Your task to perform on an android device: Go to internet settings Image 0: 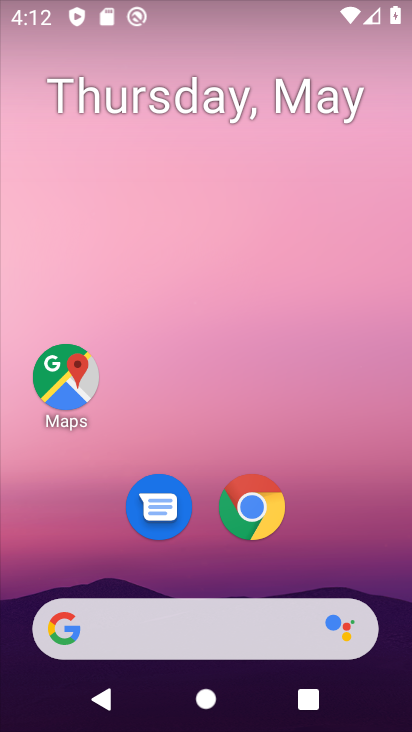
Step 0: drag from (330, 567) to (293, 4)
Your task to perform on an android device: Go to internet settings Image 1: 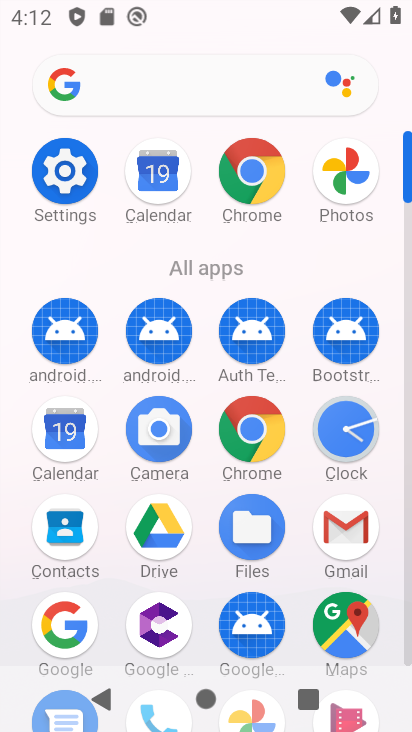
Step 1: click (71, 171)
Your task to perform on an android device: Go to internet settings Image 2: 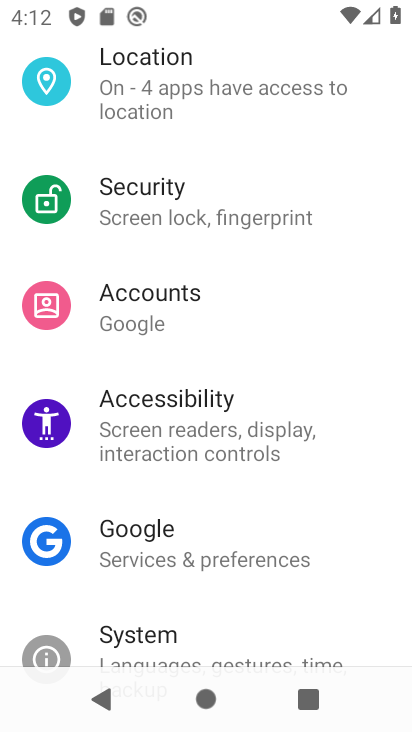
Step 2: drag from (109, 227) to (202, 492)
Your task to perform on an android device: Go to internet settings Image 3: 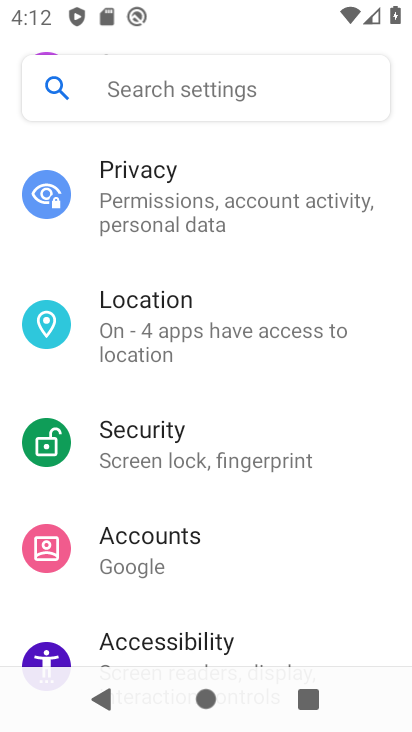
Step 3: drag from (173, 226) to (240, 473)
Your task to perform on an android device: Go to internet settings Image 4: 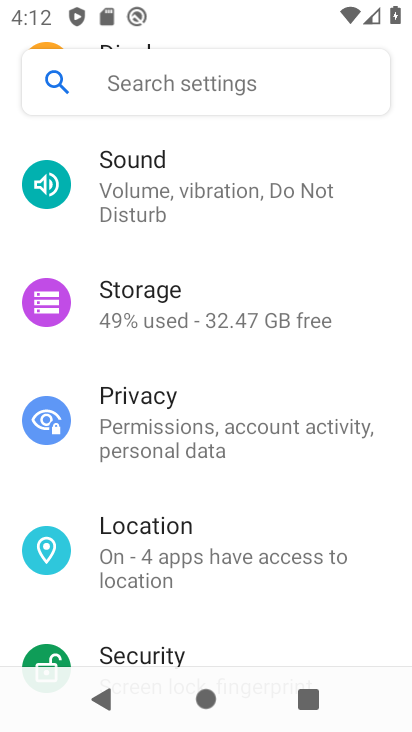
Step 4: drag from (217, 272) to (289, 475)
Your task to perform on an android device: Go to internet settings Image 5: 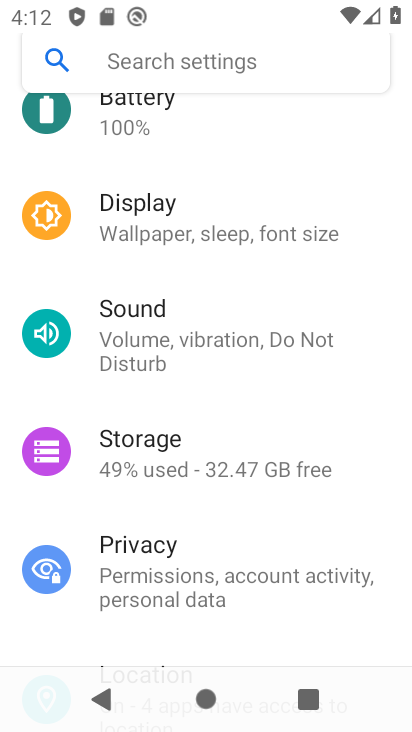
Step 5: drag from (239, 213) to (282, 436)
Your task to perform on an android device: Go to internet settings Image 6: 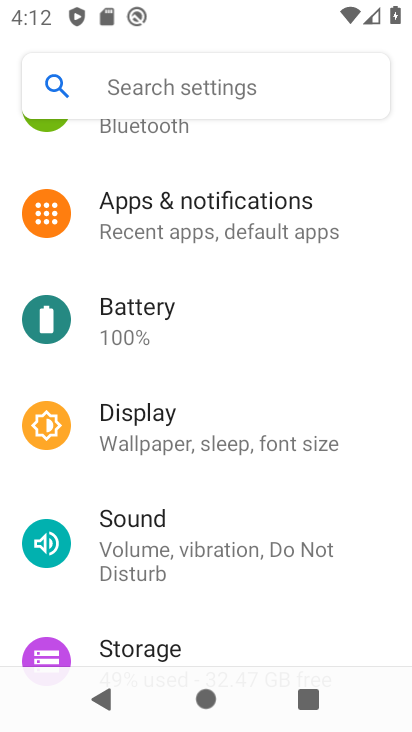
Step 6: drag from (216, 246) to (262, 417)
Your task to perform on an android device: Go to internet settings Image 7: 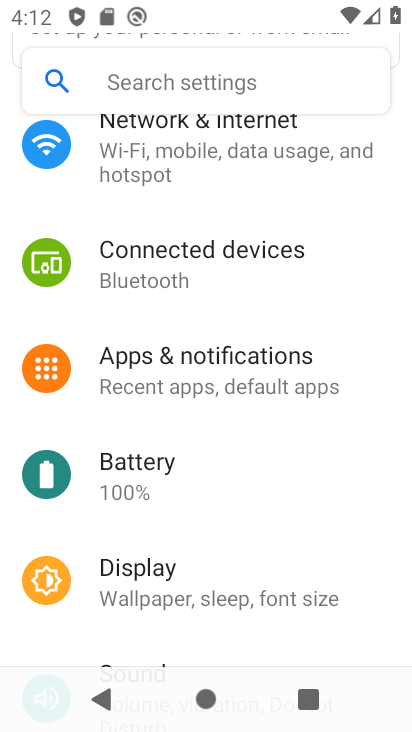
Step 7: drag from (254, 192) to (285, 472)
Your task to perform on an android device: Go to internet settings Image 8: 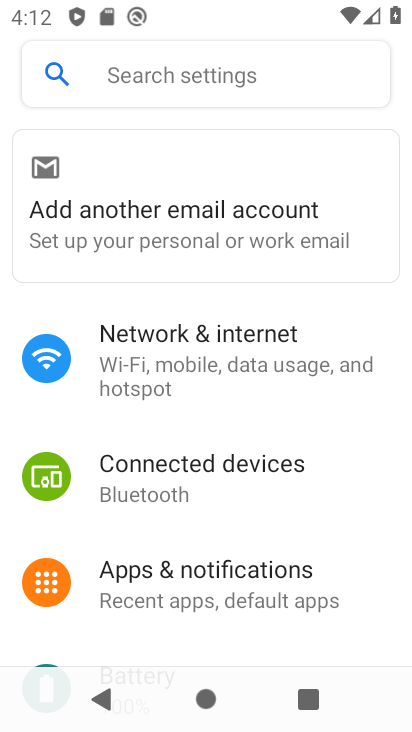
Step 8: click (177, 348)
Your task to perform on an android device: Go to internet settings Image 9: 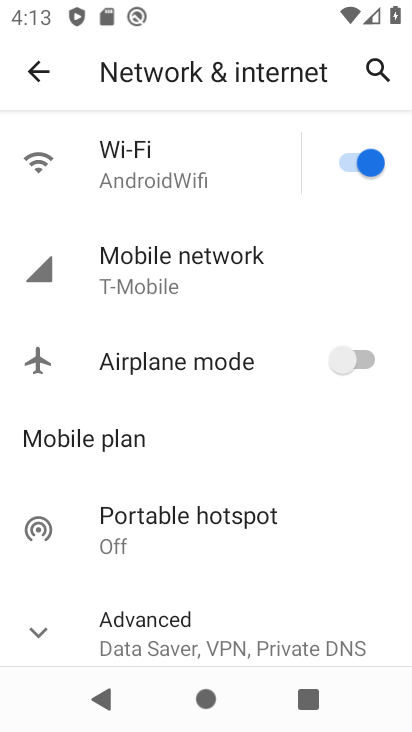
Step 9: click (105, 252)
Your task to perform on an android device: Go to internet settings Image 10: 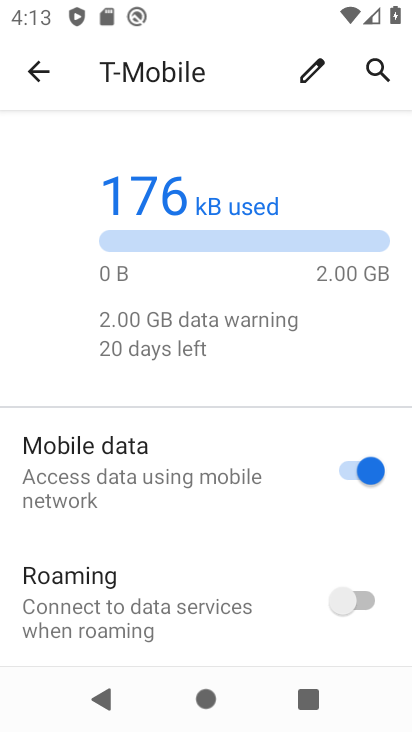
Step 10: task complete